Your task to perform on an android device: Open Wikipedia Image 0: 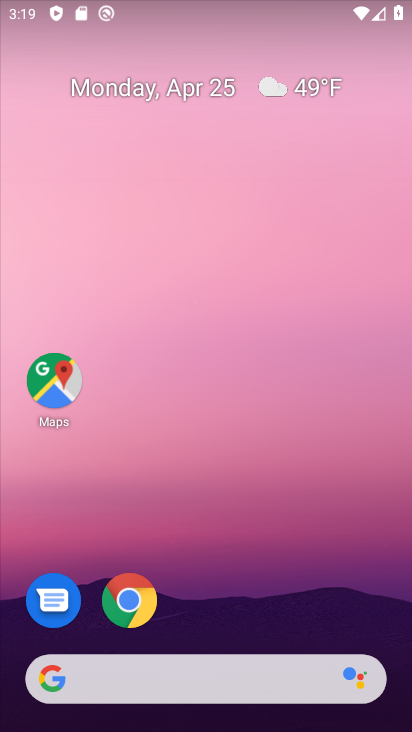
Step 0: click (144, 587)
Your task to perform on an android device: Open Wikipedia Image 1: 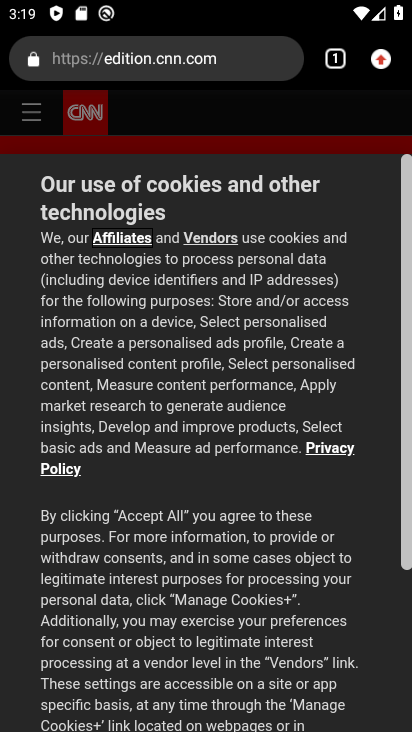
Step 1: click (386, 62)
Your task to perform on an android device: Open Wikipedia Image 2: 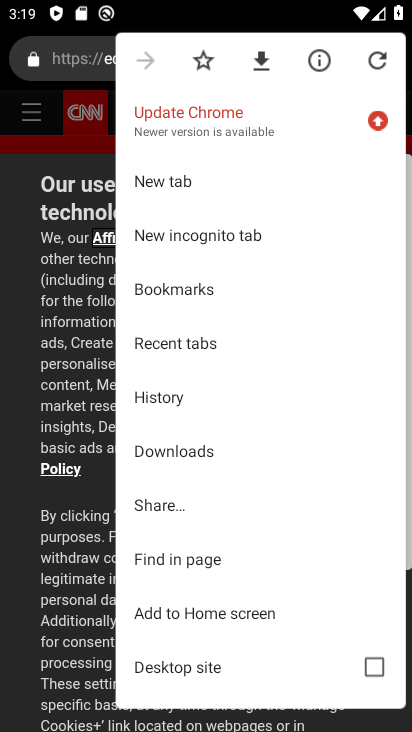
Step 2: click (278, 171)
Your task to perform on an android device: Open Wikipedia Image 3: 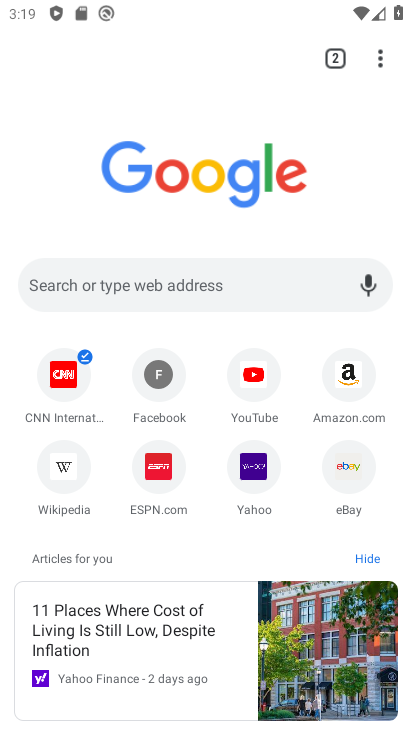
Step 3: click (66, 462)
Your task to perform on an android device: Open Wikipedia Image 4: 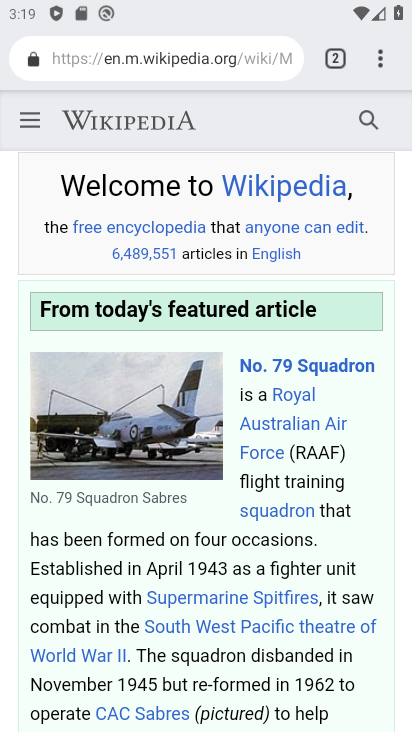
Step 4: task complete